Your task to perform on an android device: toggle wifi Image 0: 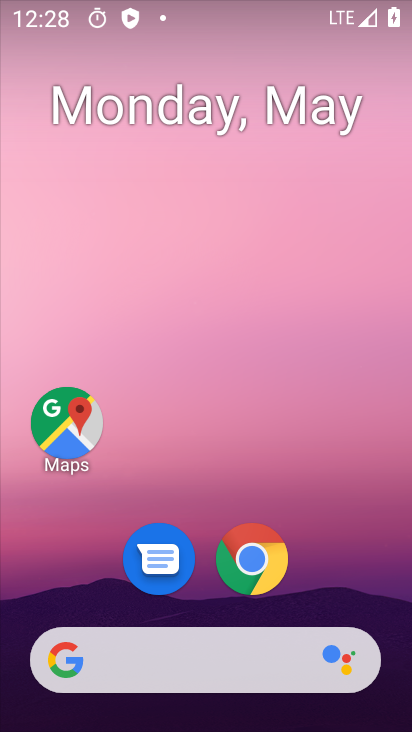
Step 0: drag from (203, 611) to (260, 8)
Your task to perform on an android device: toggle wifi Image 1: 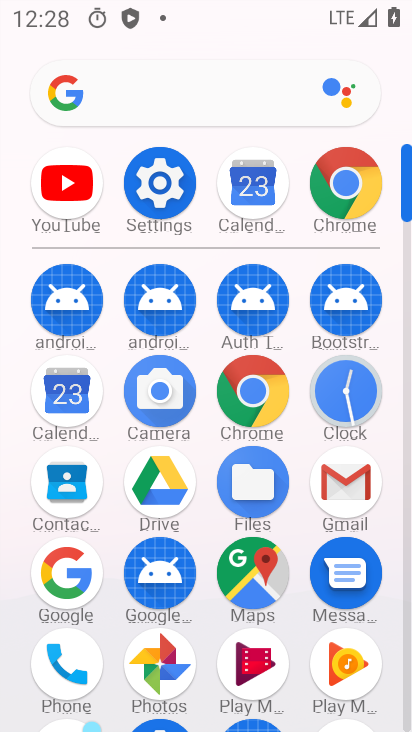
Step 1: click (174, 194)
Your task to perform on an android device: toggle wifi Image 2: 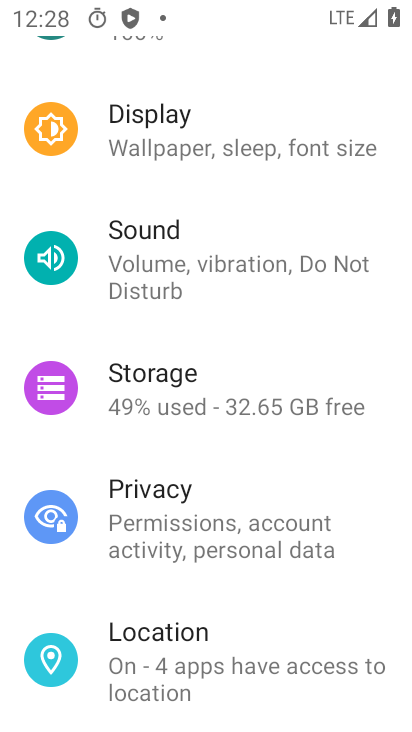
Step 2: drag from (274, 159) to (268, 626)
Your task to perform on an android device: toggle wifi Image 3: 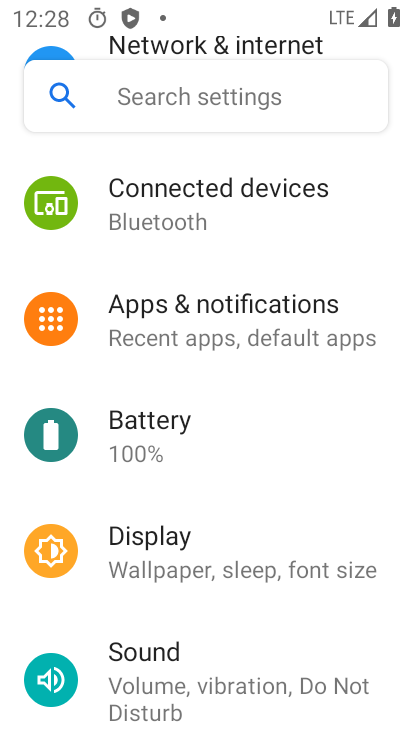
Step 3: drag from (212, 301) to (231, 671)
Your task to perform on an android device: toggle wifi Image 4: 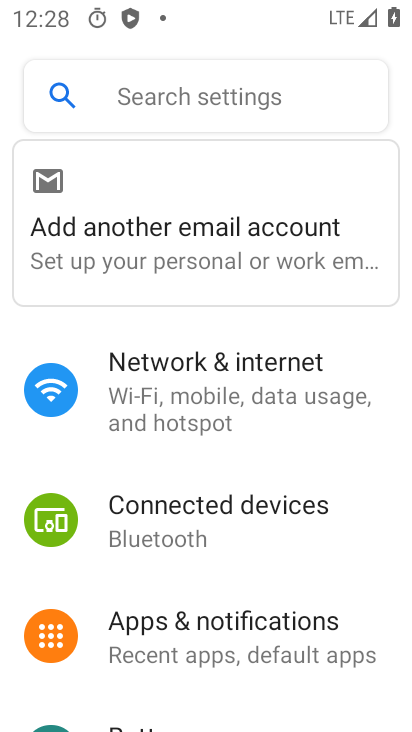
Step 4: click (258, 386)
Your task to perform on an android device: toggle wifi Image 5: 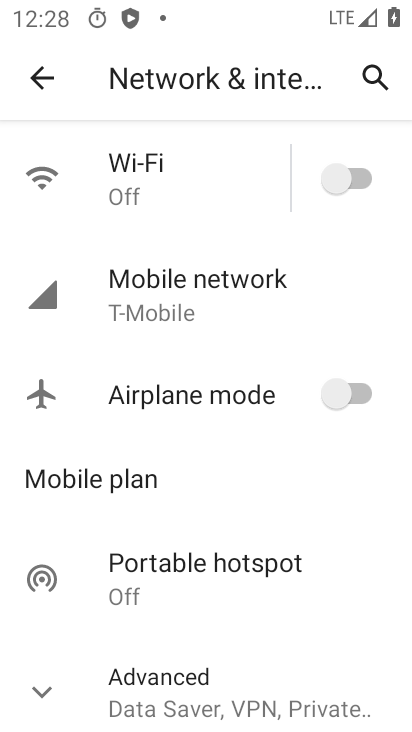
Step 5: click (356, 176)
Your task to perform on an android device: toggle wifi Image 6: 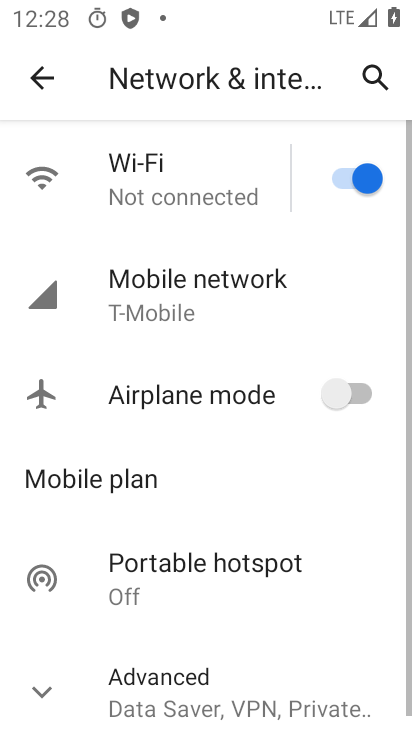
Step 6: task complete